Your task to perform on an android device: Open sound settings Image 0: 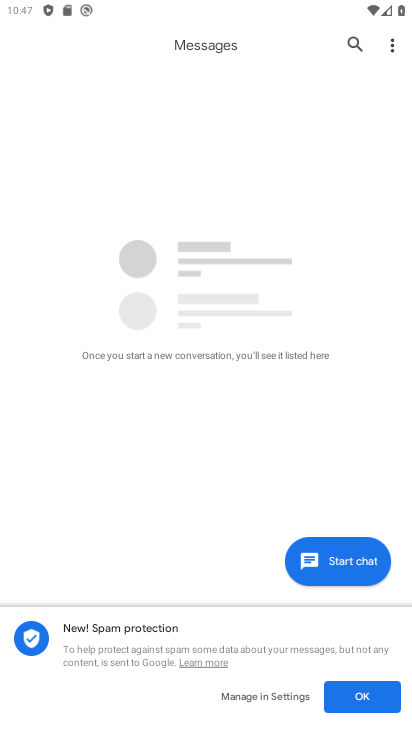
Step 0: press back button
Your task to perform on an android device: Open sound settings Image 1: 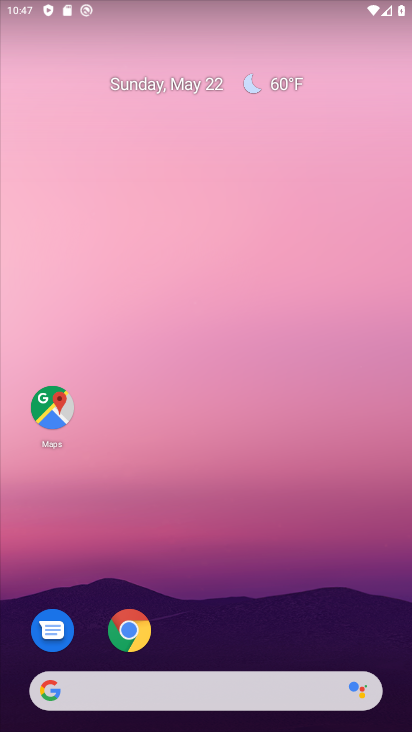
Step 1: drag from (265, 631) to (216, 30)
Your task to perform on an android device: Open sound settings Image 2: 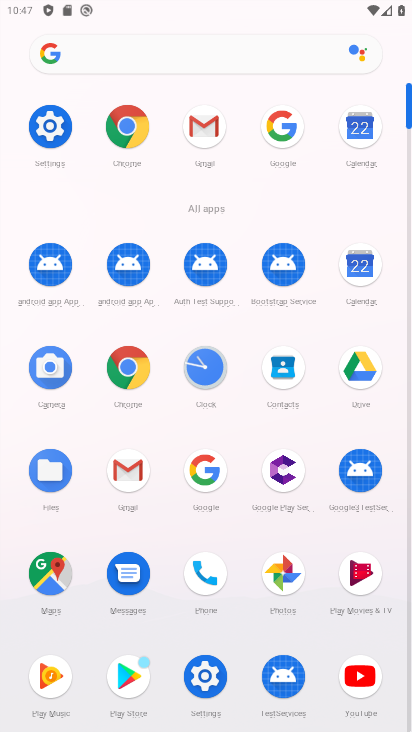
Step 2: click (50, 127)
Your task to perform on an android device: Open sound settings Image 3: 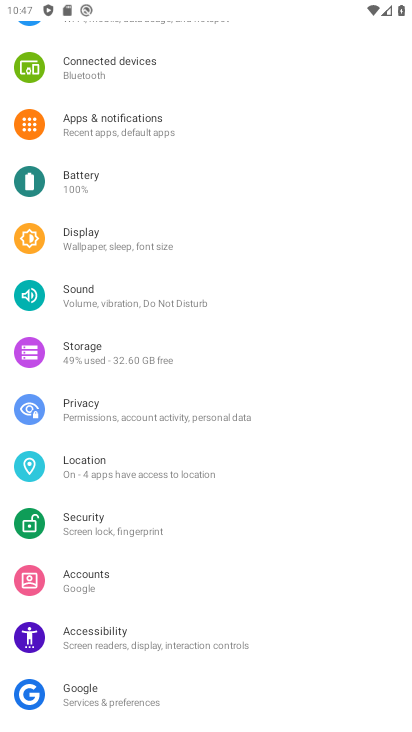
Step 3: click (90, 296)
Your task to perform on an android device: Open sound settings Image 4: 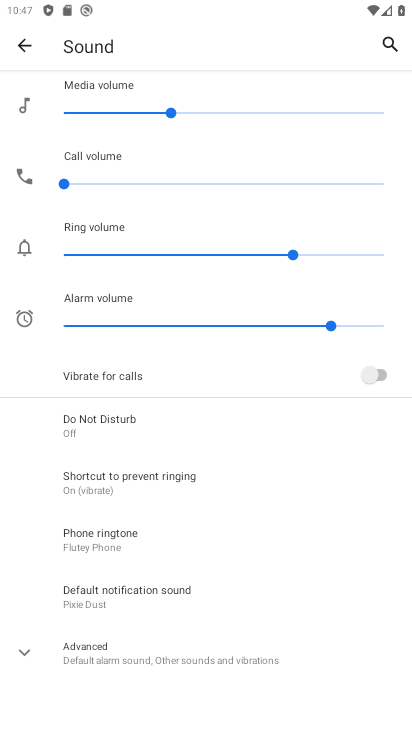
Step 4: task complete